Your task to perform on an android device: Open settings Image 0: 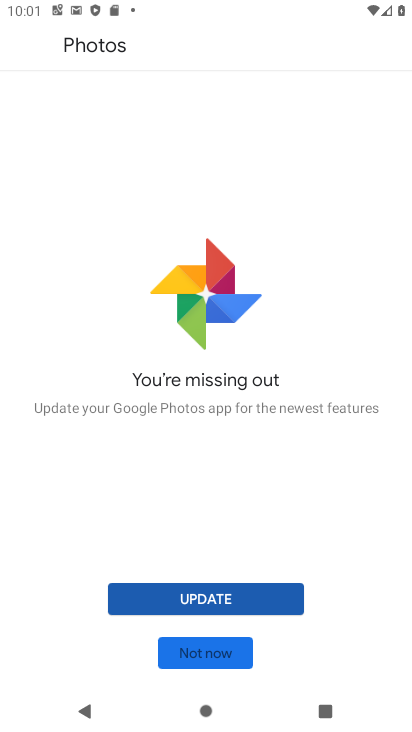
Step 0: press back button
Your task to perform on an android device: Open settings Image 1: 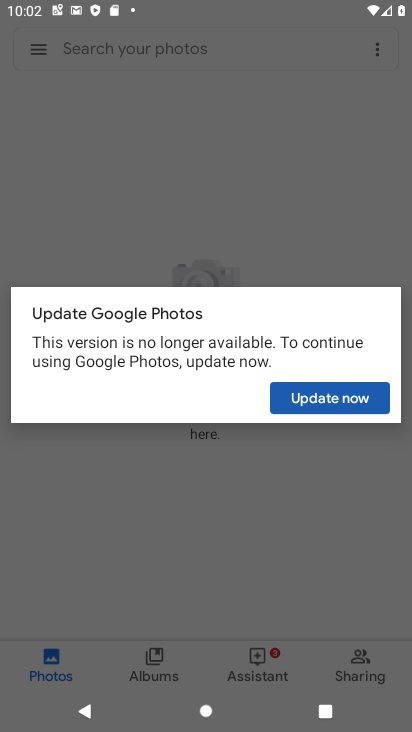
Step 1: press home button
Your task to perform on an android device: Open settings Image 2: 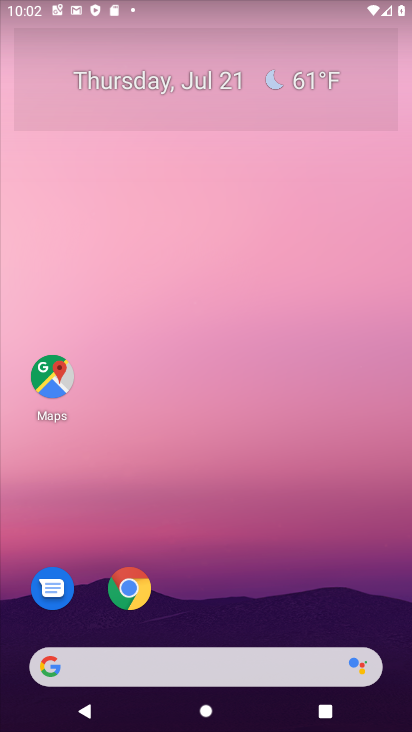
Step 2: drag from (256, 587) to (338, 18)
Your task to perform on an android device: Open settings Image 3: 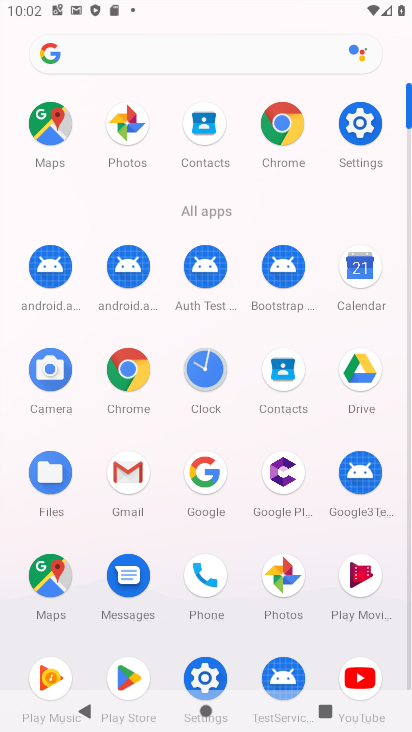
Step 3: click (368, 130)
Your task to perform on an android device: Open settings Image 4: 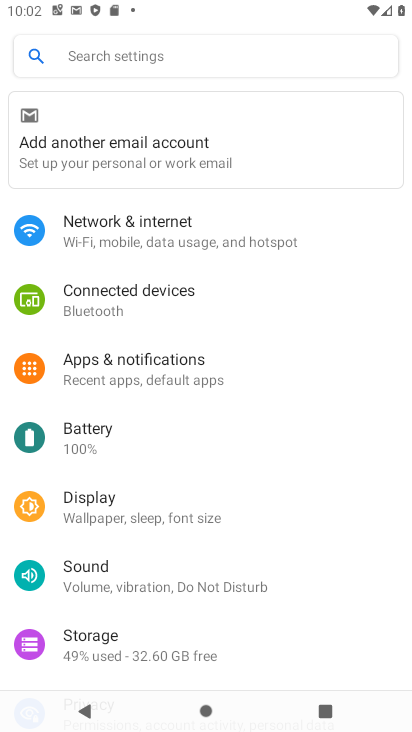
Step 4: task complete